Your task to perform on an android device: turn off airplane mode Image 0: 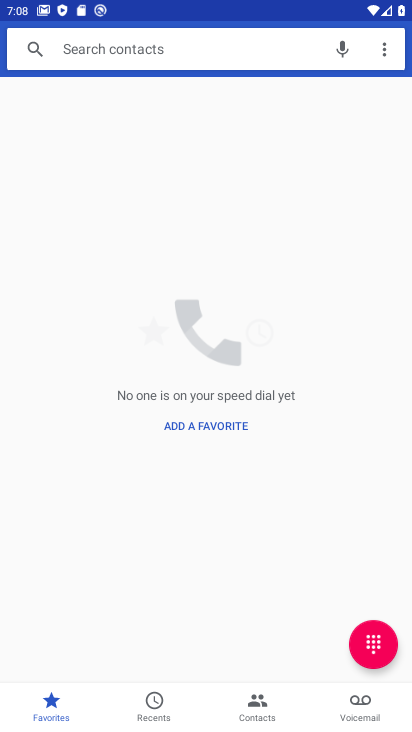
Step 0: press home button
Your task to perform on an android device: turn off airplane mode Image 1: 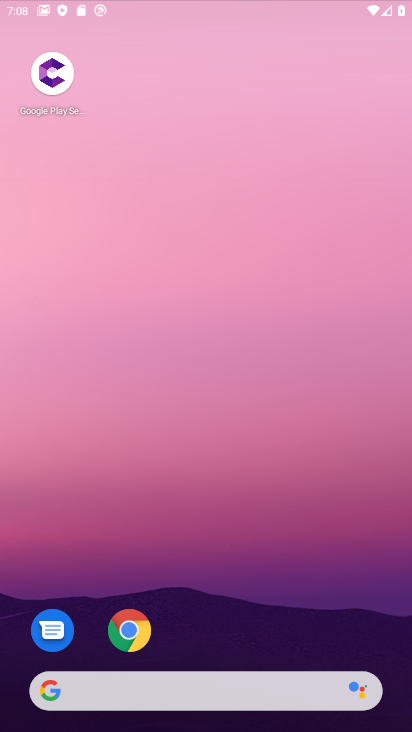
Step 1: drag from (254, 580) to (19, 48)
Your task to perform on an android device: turn off airplane mode Image 2: 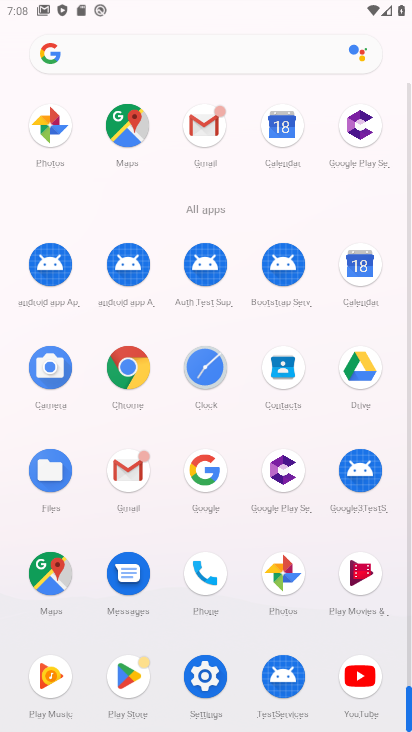
Step 2: click (203, 667)
Your task to perform on an android device: turn off airplane mode Image 3: 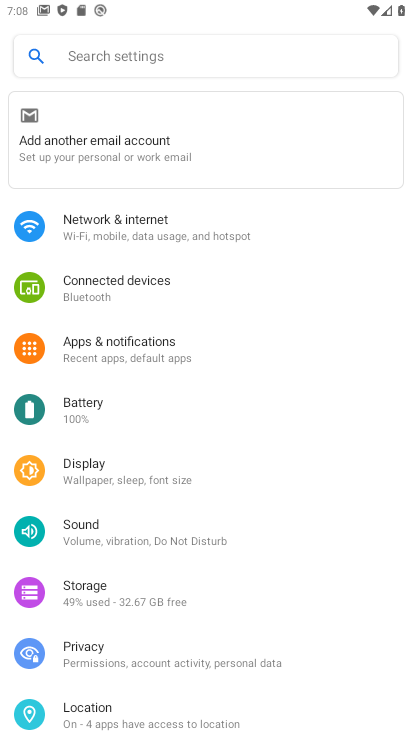
Step 3: click (106, 221)
Your task to perform on an android device: turn off airplane mode Image 4: 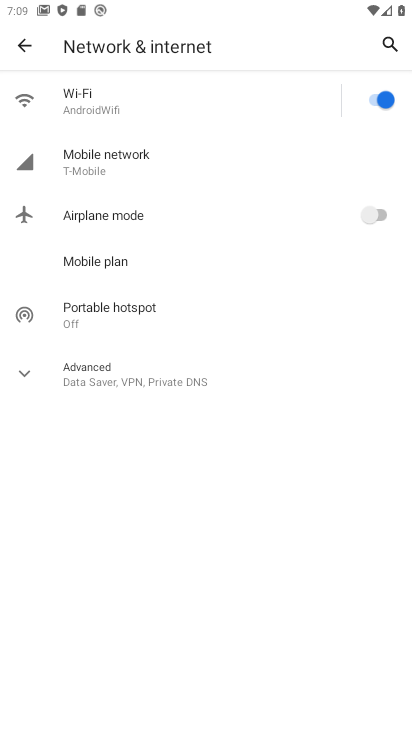
Step 4: task complete